Your task to perform on an android device: Open Google Chrome and click the shortcut for Amazon.com Image 0: 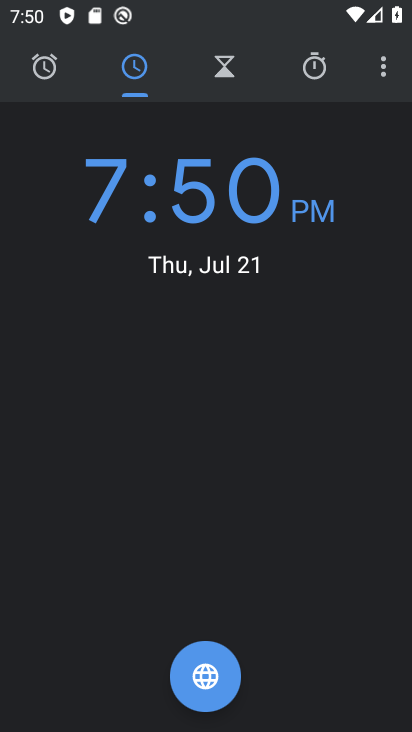
Step 0: press home button
Your task to perform on an android device: Open Google Chrome and click the shortcut for Amazon.com Image 1: 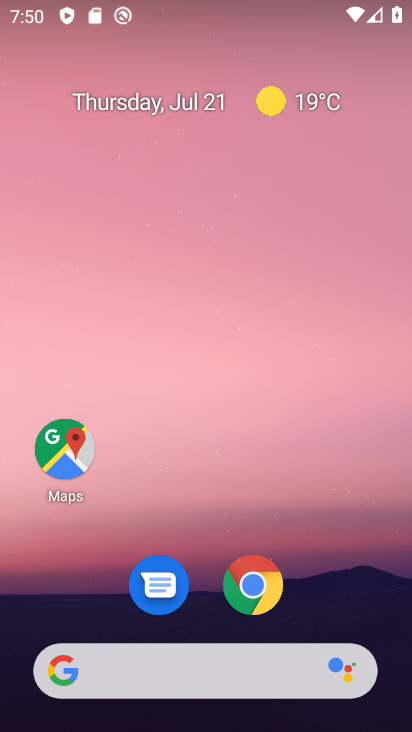
Step 1: click (256, 573)
Your task to perform on an android device: Open Google Chrome and click the shortcut for Amazon.com Image 2: 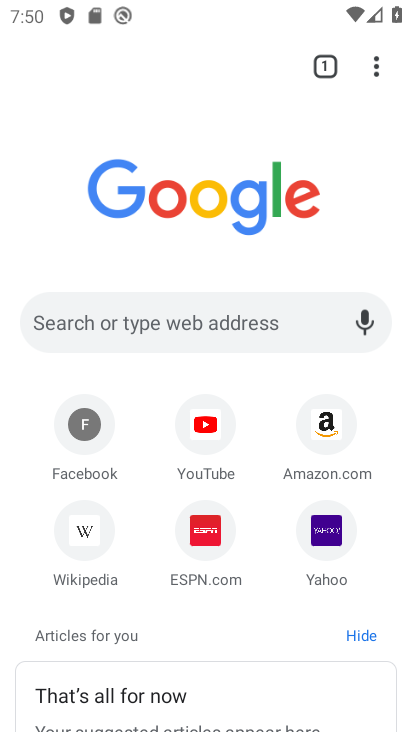
Step 2: click (327, 436)
Your task to perform on an android device: Open Google Chrome and click the shortcut for Amazon.com Image 3: 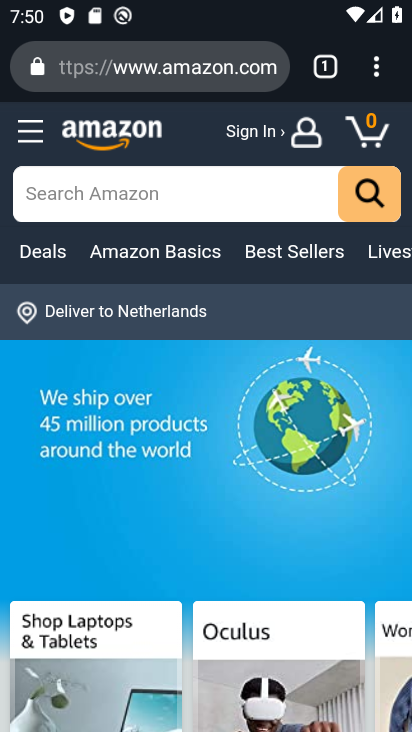
Step 3: task complete